Your task to perform on an android device: Check the news Image 0: 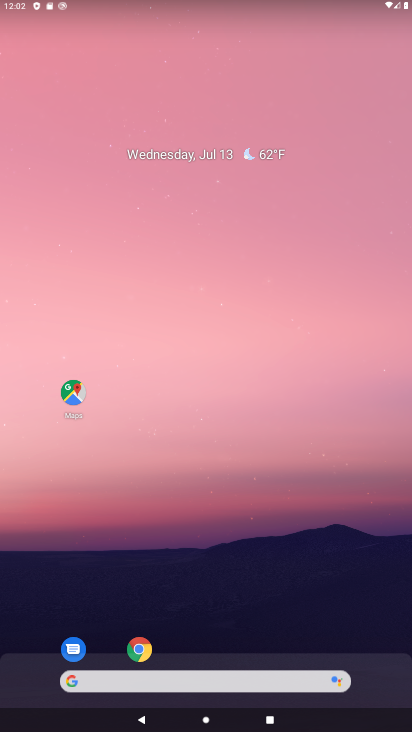
Step 0: drag from (97, 216) to (372, 310)
Your task to perform on an android device: Check the news Image 1: 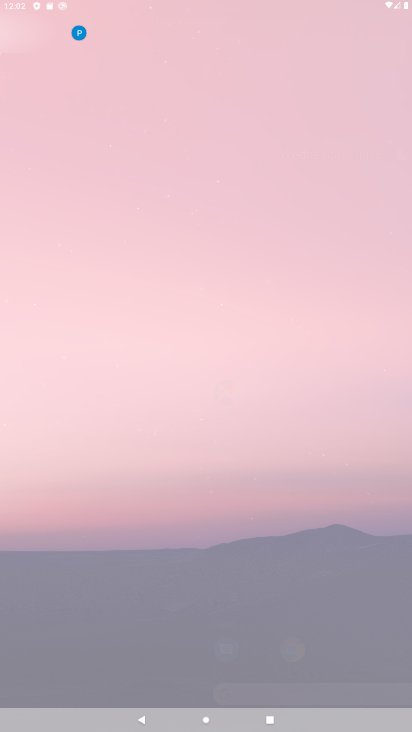
Step 1: task complete